Your task to perform on an android device: turn on translation in the chrome app Image 0: 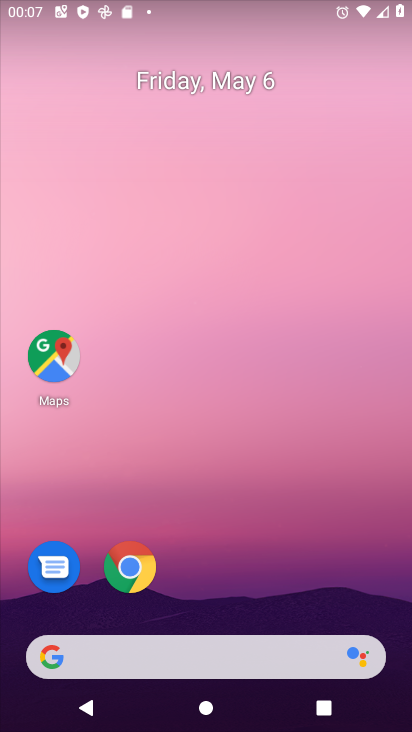
Step 0: click (133, 566)
Your task to perform on an android device: turn on translation in the chrome app Image 1: 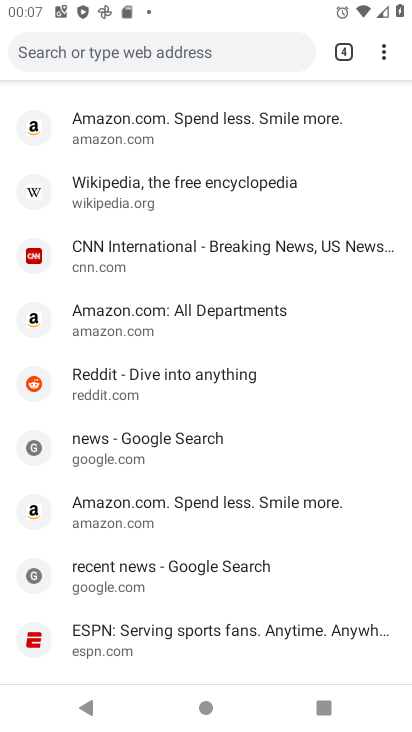
Step 1: click (385, 51)
Your task to perform on an android device: turn on translation in the chrome app Image 2: 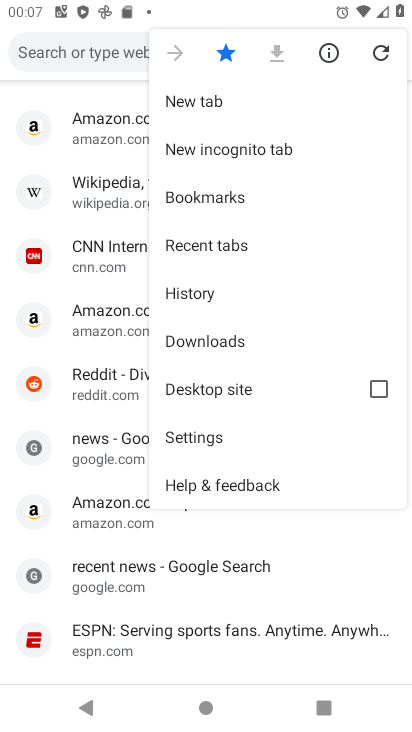
Step 2: click (235, 445)
Your task to perform on an android device: turn on translation in the chrome app Image 3: 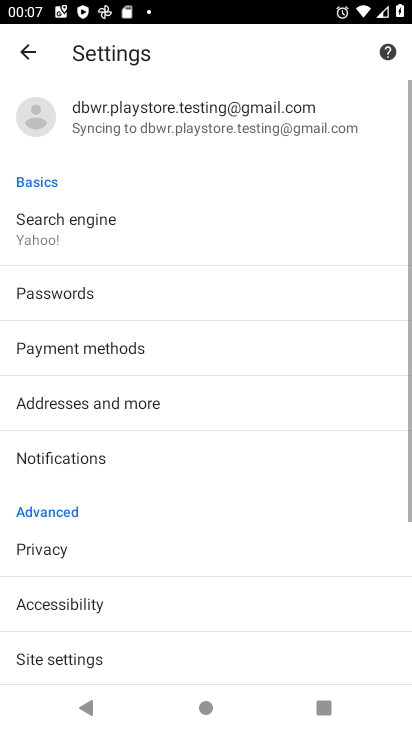
Step 3: drag from (185, 619) to (192, 291)
Your task to perform on an android device: turn on translation in the chrome app Image 4: 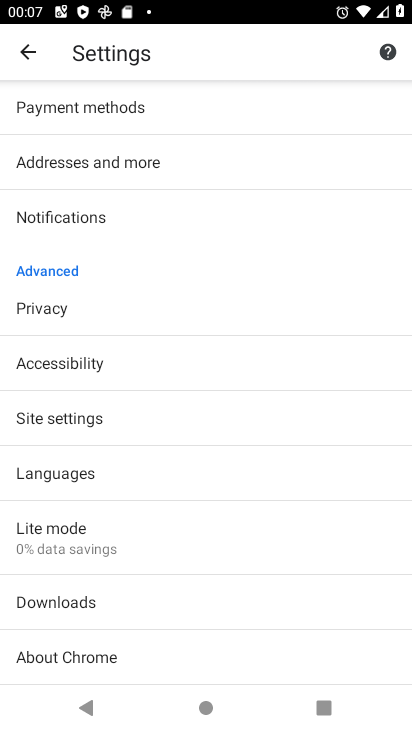
Step 4: drag from (127, 595) to (172, 398)
Your task to perform on an android device: turn on translation in the chrome app Image 5: 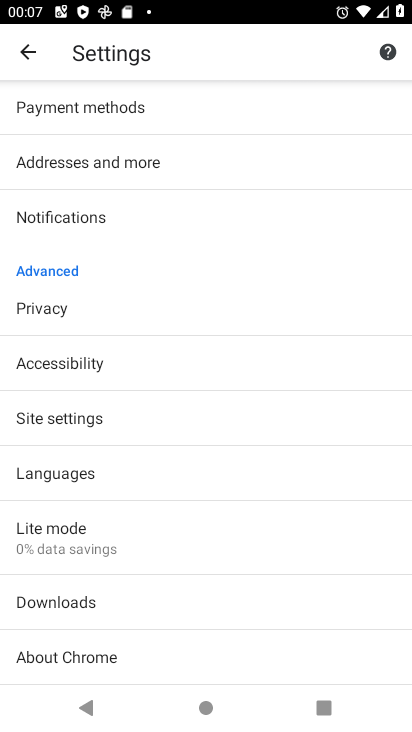
Step 5: click (140, 477)
Your task to perform on an android device: turn on translation in the chrome app Image 6: 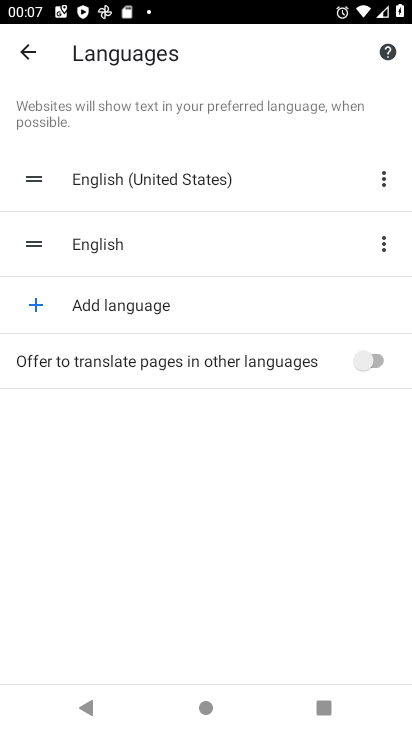
Step 6: click (376, 347)
Your task to perform on an android device: turn on translation in the chrome app Image 7: 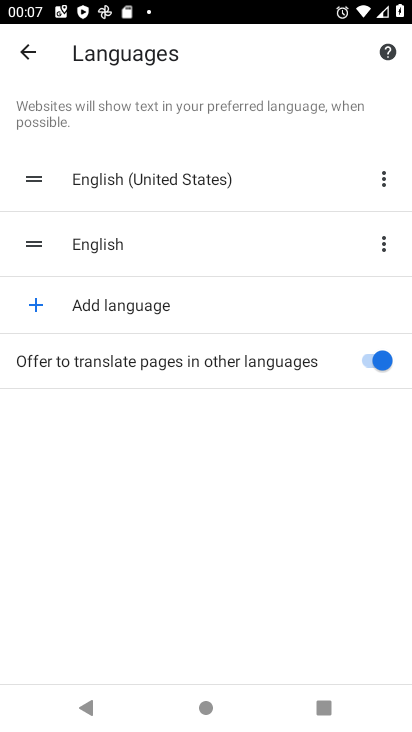
Step 7: task complete